Your task to perform on an android device: change notifications settings Image 0: 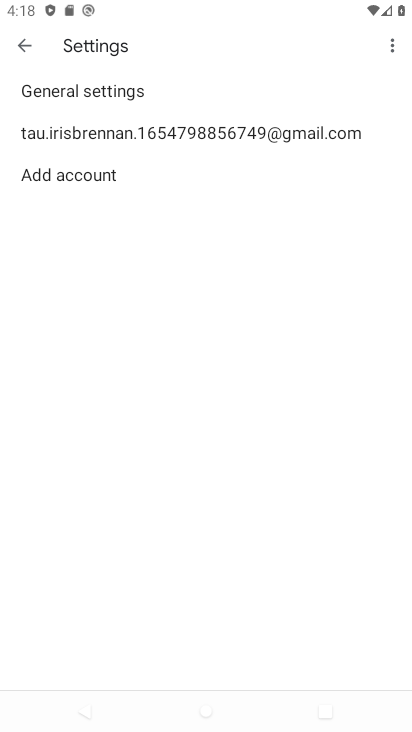
Step 0: press home button
Your task to perform on an android device: change notifications settings Image 1: 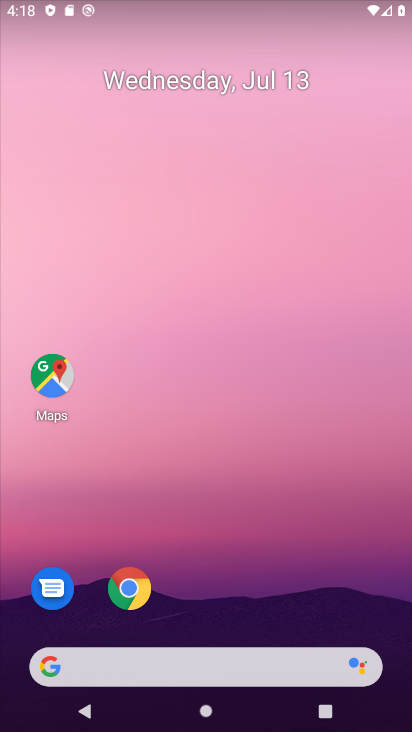
Step 1: drag from (18, 699) to (99, 316)
Your task to perform on an android device: change notifications settings Image 2: 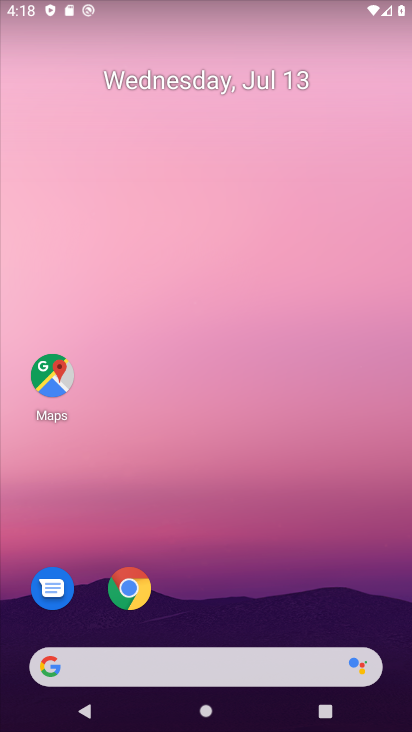
Step 2: drag from (44, 726) to (291, 1)
Your task to perform on an android device: change notifications settings Image 3: 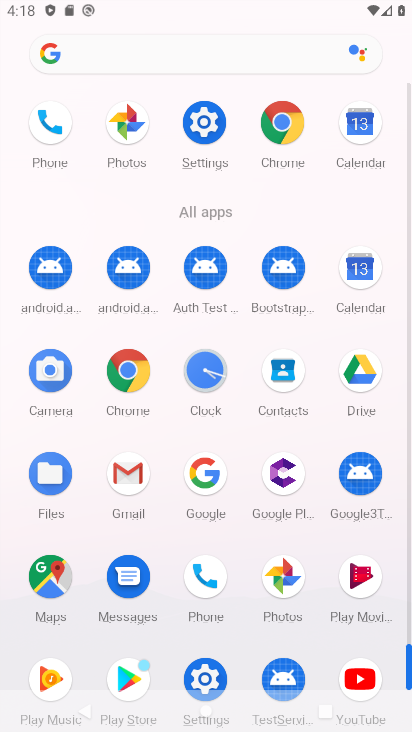
Step 3: click (195, 672)
Your task to perform on an android device: change notifications settings Image 4: 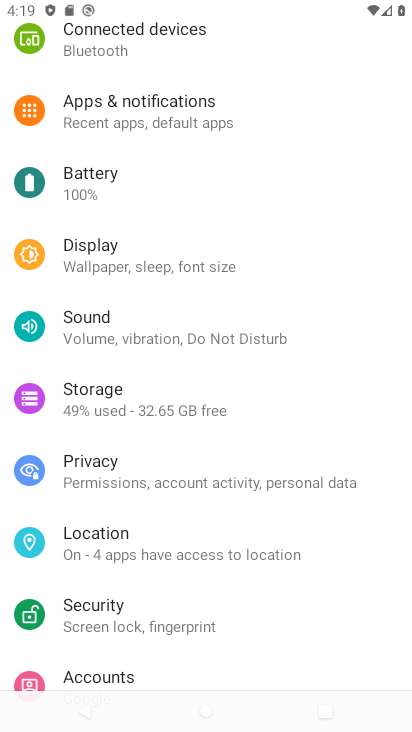
Step 4: click (117, 115)
Your task to perform on an android device: change notifications settings Image 5: 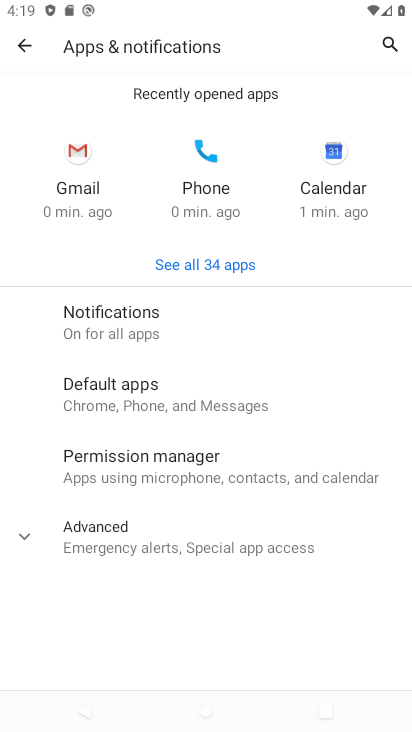
Step 5: click (111, 315)
Your task to perform on an android device: change notifications settings Image 6: 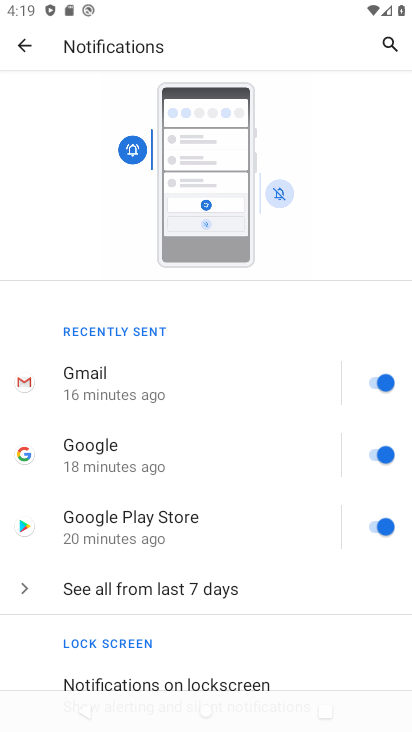
Step 6: task complete